Your task to perform on an android device: Open settings on Google Maps Image 0: 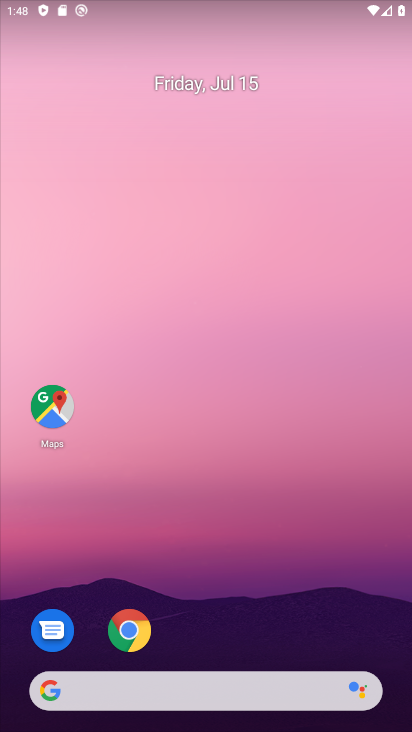
Step 0: drag from (358, 614) to (362, 164)
Your task to perform on an android device: Open settings on Google Maps Image 1: 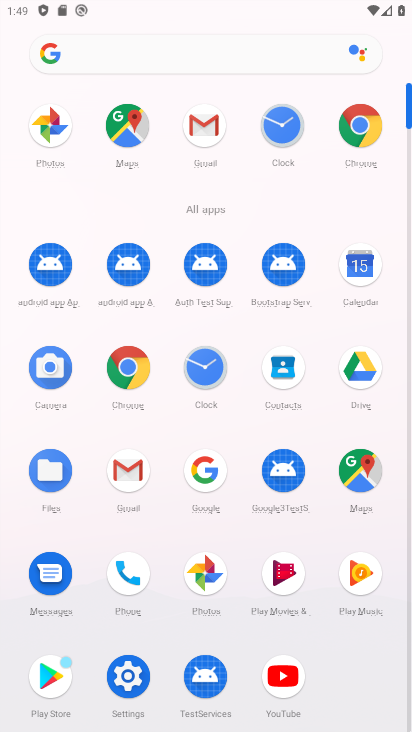
Step 1: click (357, 477)
Your task to perform on an android device: Open settings on Google Maps Image 2: 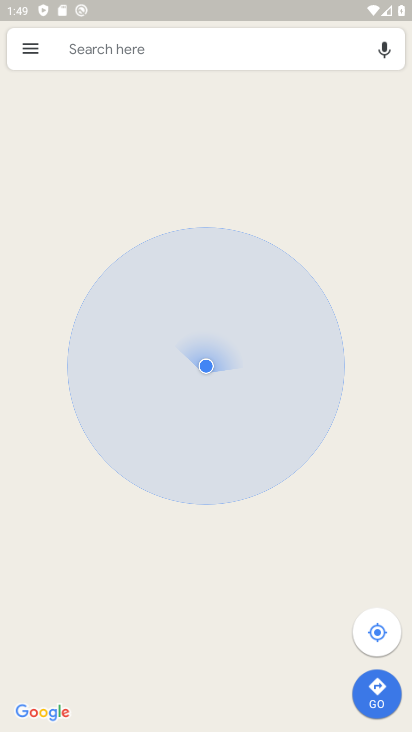
Step 2: click (34, 48)
Your task to perform on an android device: Open settings on Google Maps Image 3: 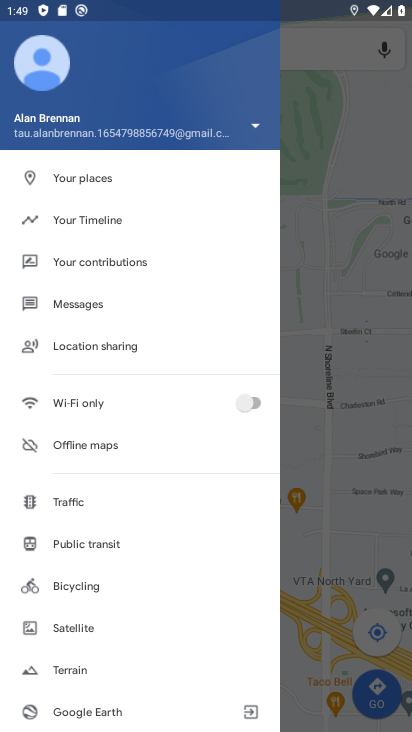
Step 3: drag from (191, 493) to (192, 410)
Your task to perform on an android device: Open settings on Google Maps Image 4: 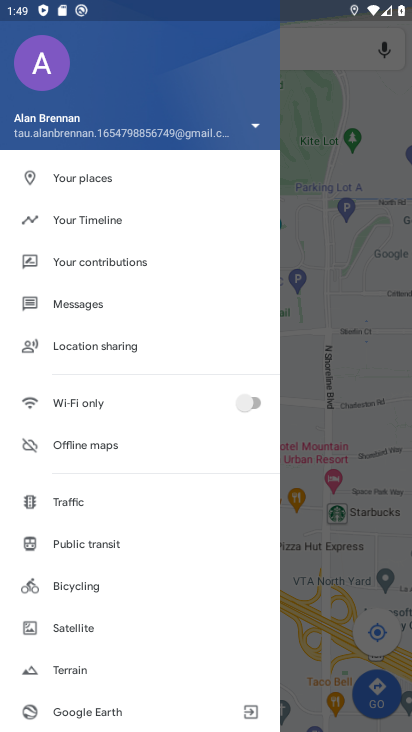
Step 4: drag from (162, 630) to (178, 463)
Your task to perform on an android device: Open settings on Google Maps Image 5: 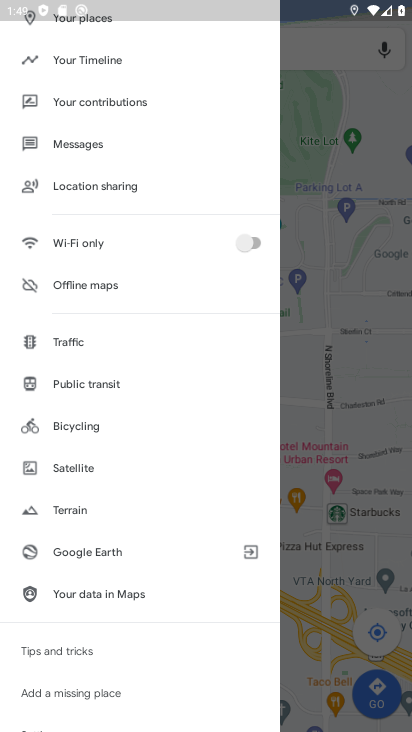
Step 5: drag from (188, 600) to (180, 365)
Your task to perform on an android device: Open settings on Google Maps Image 6: 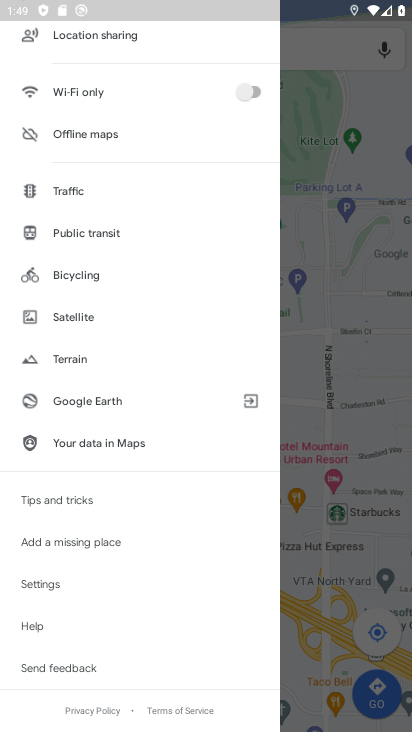
Step 6: click (76, 591)
Your task to perform on an android device: Open settings on Google Maps Image 7: 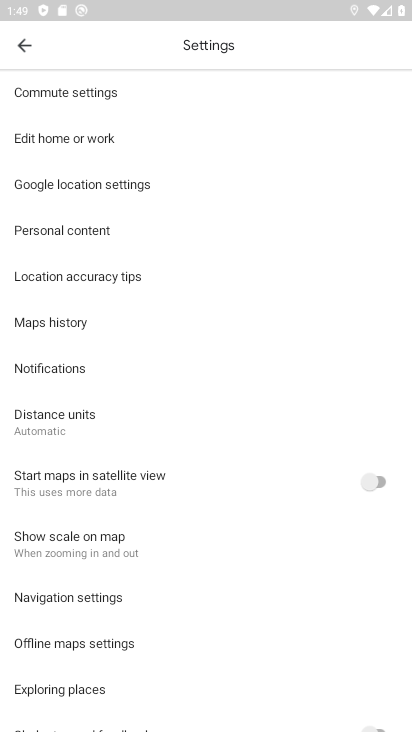
Step 7: task complete